Your task to perform on an android device: Open the stopwatch Image 0: 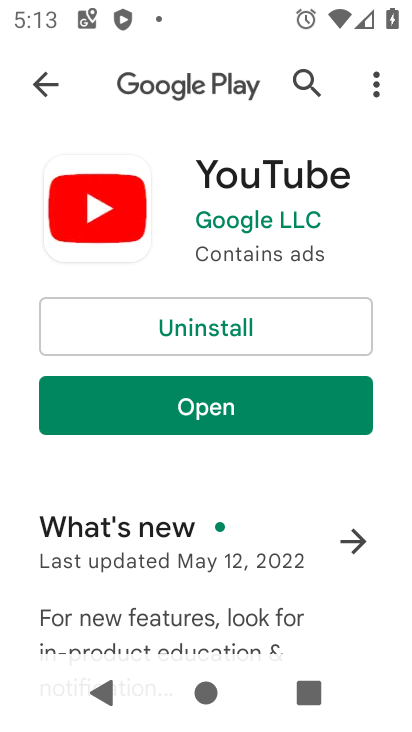
Step 0: press home button
Your task to perform on an android device: Open the stopwatch Image 1: 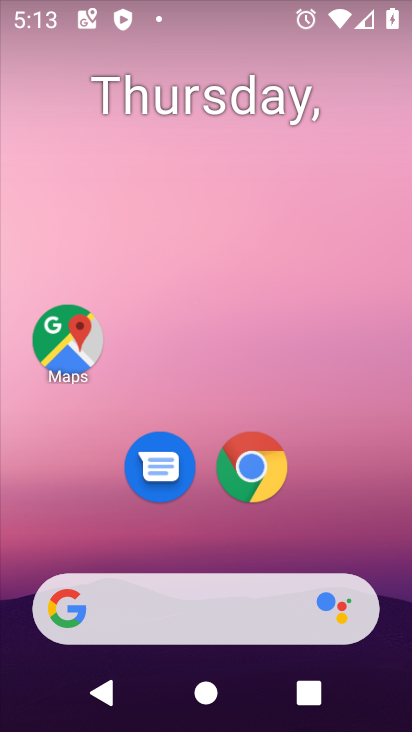
Step 1: drag from (396, 540) to (282, 56)
Your task to perform on an android device: Open the stopwatch Image 2: 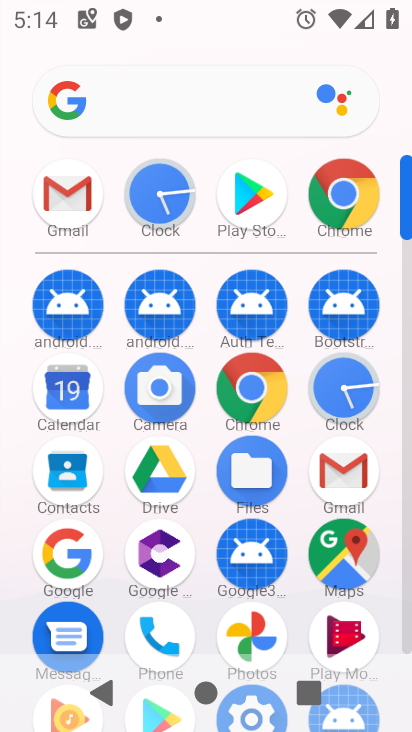
Step 2: click (164, 204)
Your task to perform on an android device: Open the stopwatch Image 3: 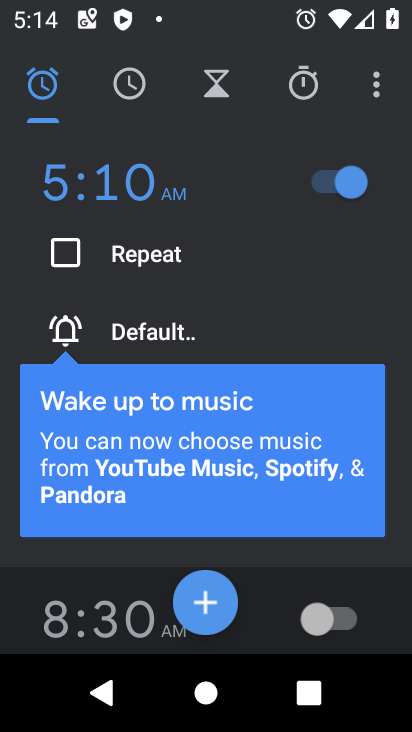
Step 3: click (296, 73)
Your task to perform on an android device: Open the stopwatch Image 4: 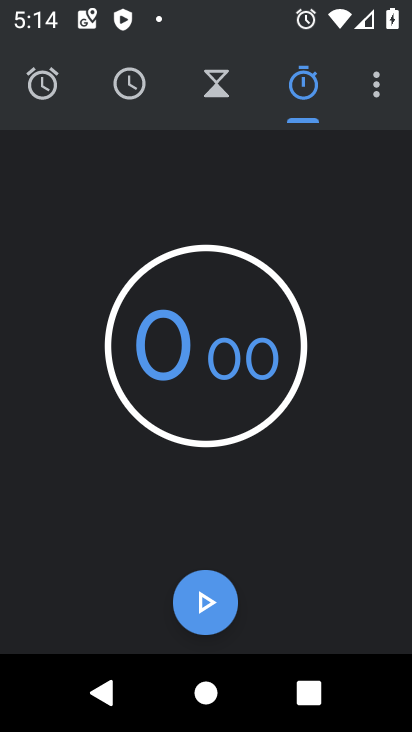
Step 4: task complete